Your task to perform on an android device: turn off javascript in the chrome app Image 0: 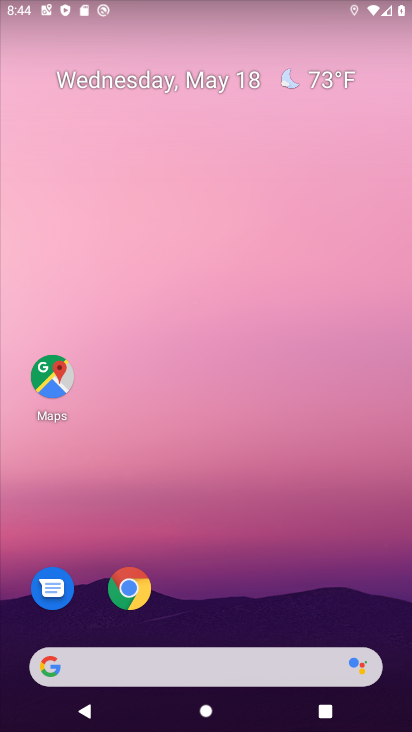
Step 0: drag from (297, 561) to (285, 195)
Your task to perform on an android device: turn off javascript in the chrome app Image 1: 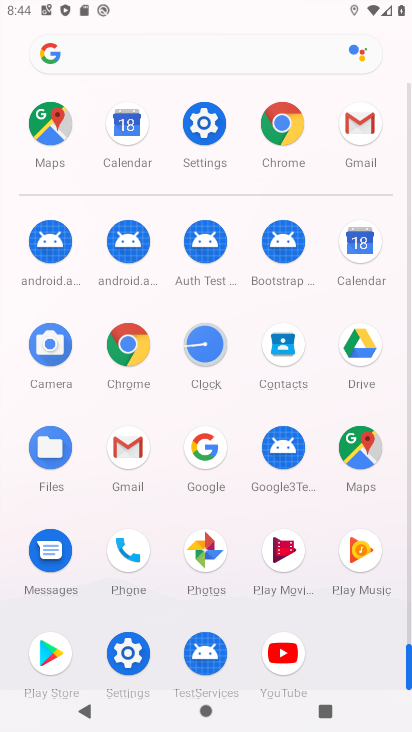
Step 1: click (123, 347)
Your task to perform on an android device: turn off javascript in the chrome app Image 2: 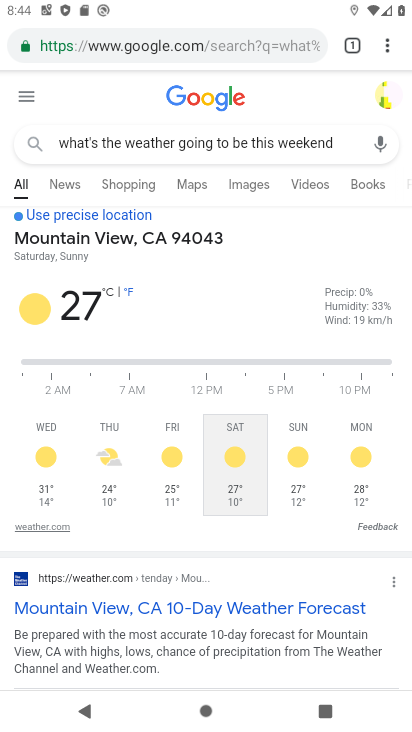
Step 2: drag from (394, 50) to (277, 502)
Your task to perform on an android device: turn off javascript in the chrome app Image 3: 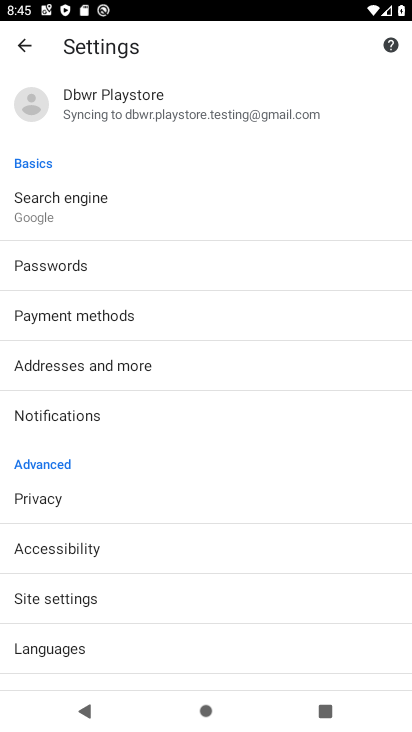
Step 3: click (124, 600)
Your task to perform on an android device: turn off javascript in the chrome app Image 4: 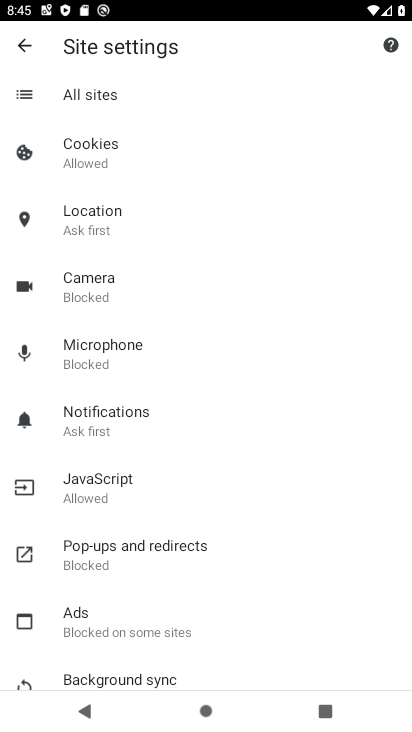
Step 4: click (144, 470)
Your task to perform on an android device: turn off javascript in the chrome app Image 5: 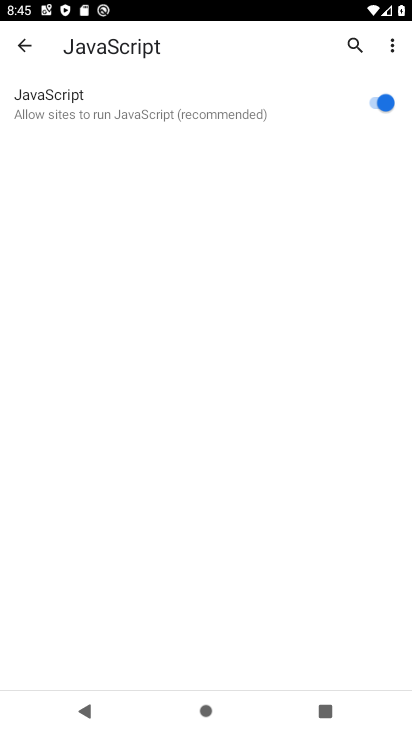
Step 5: click (374, 117)
Your task to perform on an android device: turn off javascript in the chrome app Image 6: 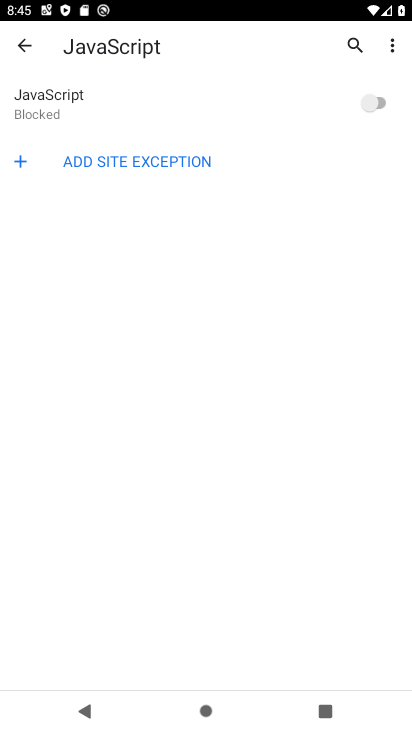
Step 6: task complete